Your task to perform on an android device: turn on data saver in the chrome app Image 0: 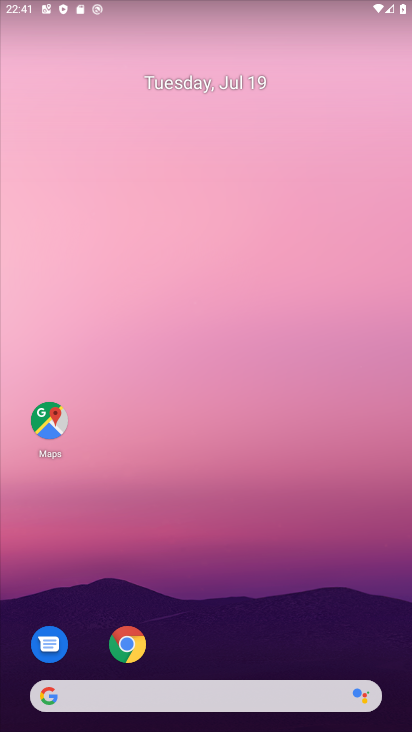
Step 0: drag from (218, 695) to (212, 60)
Your task to perform on an android device: turn on data saver in the chrome app Image 1: 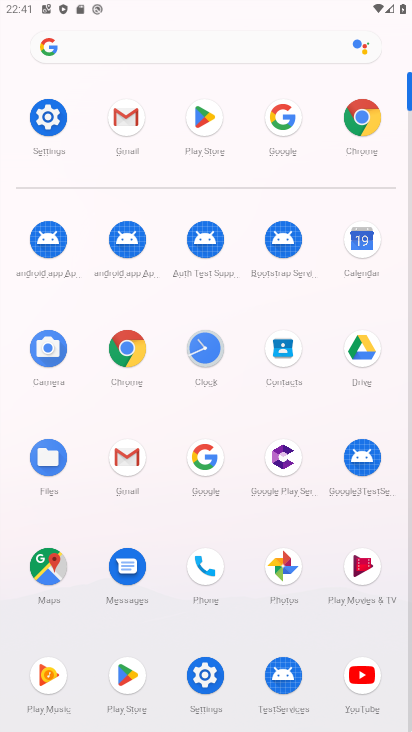
Step 1: click (127, 352)
Your task to perform on an android device: turn on data saver in the chrome app Image 2: 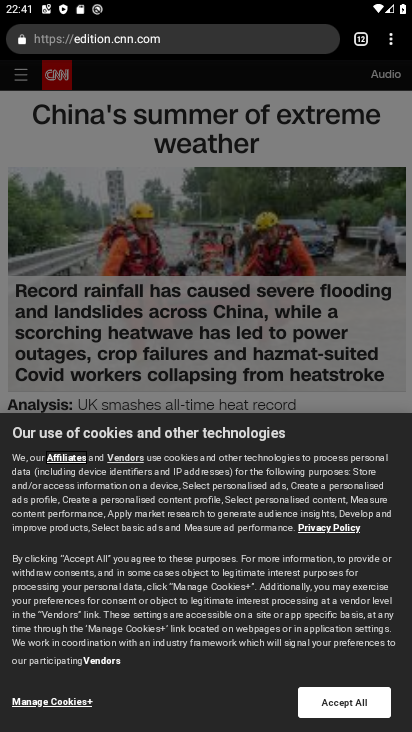
Step 2: click (391, 42)
Your task to perform on an android device: turn on data saver in the chrome app Image 3: 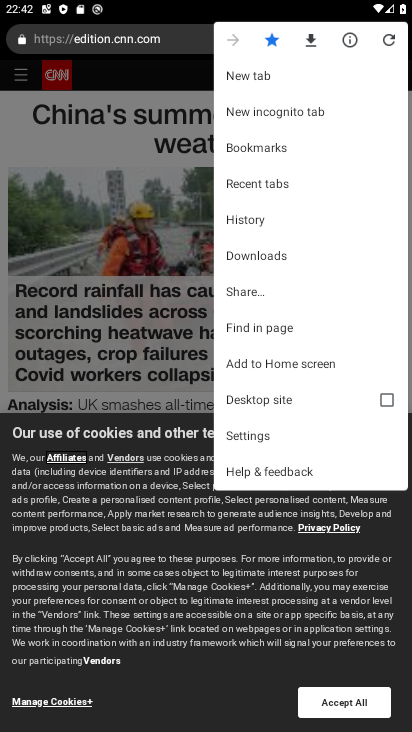
Step 3: click (247, 436)
Your task to perform on an android device: turn on data saver in the chrome app Image 4: 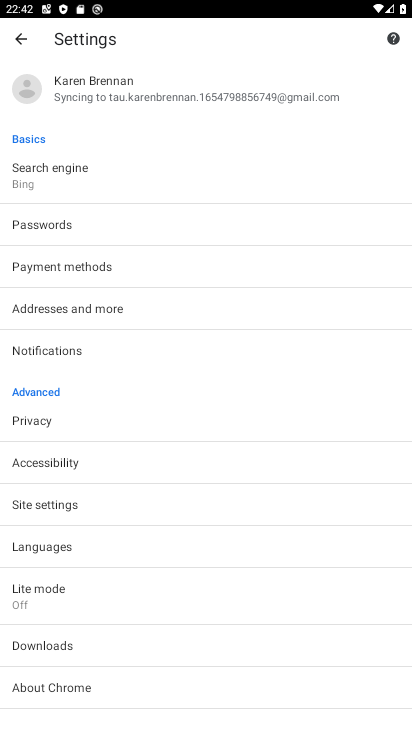
Step 4: click (42, 590)
Your task to perform on an android device: turn on data saver in the chrome app Image 5: 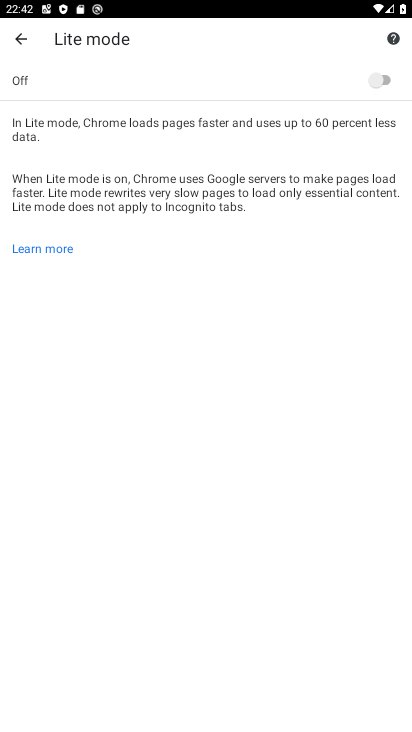
Step 5: task complete